Your task to perform on an android device: turn pop-ups off in chrome Image 0: 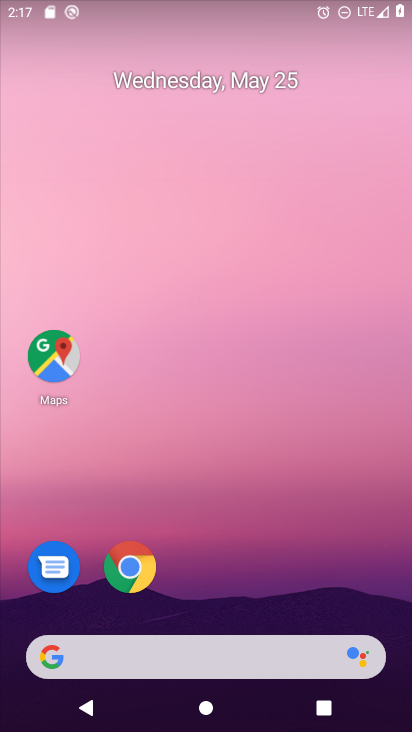
Step 0: click (138, 562)
Your task to perform on an android device: turn pop-ups off in chrome Image 1: 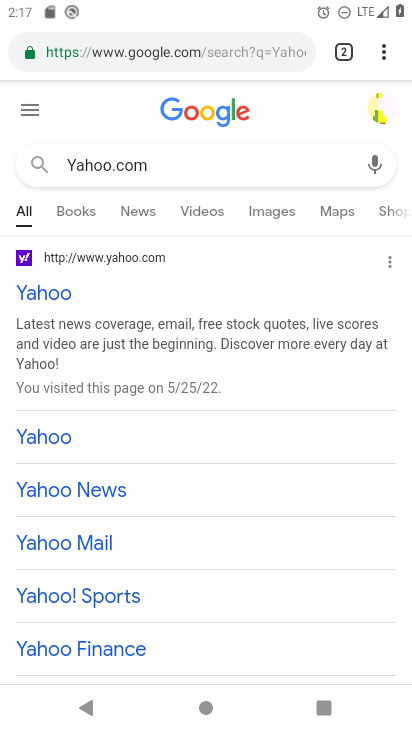
Step 1: click (384, 51)
Your task to perform on an android device: turn pop-ups off in chrome Image 2: 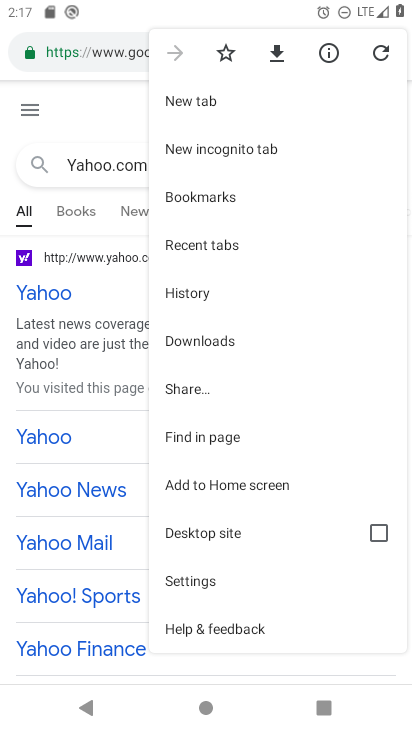
Step 2: click (189, 588)
Your task to perform on an android device: turn pop-ups off in chrome Image 3: 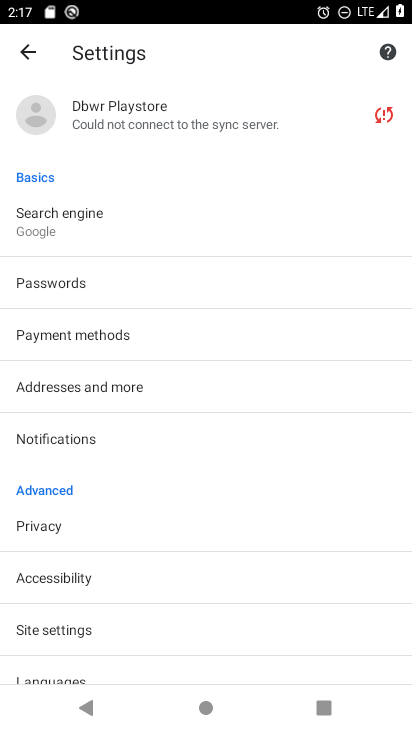
Step 3: click (45, 630)
Your task to perform on an android device: turn pop-ups off in chrome Image 4: 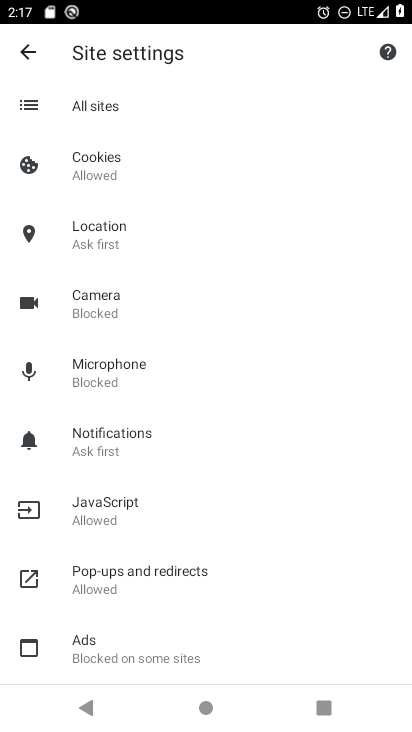
Step 4: click (108, 570)
Your task to perform on an android device: turn pop-ups off in chrome Image 5: 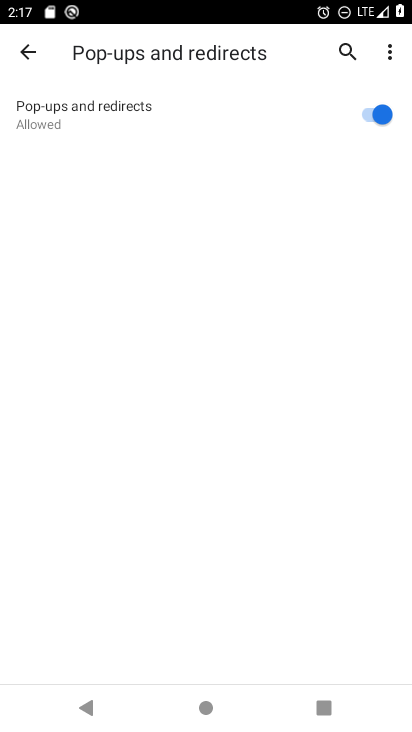
Step 5: click (365, 111)
Your task to perform on an android device: turn pop-ups off in chrome Image 6: 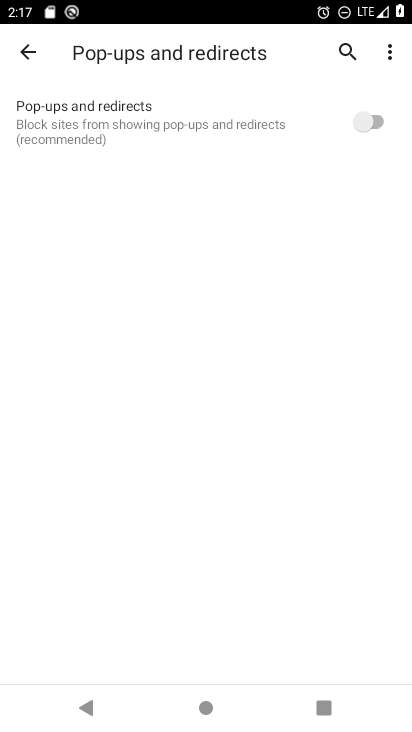
Step 6: task complete